Your task to perform on an android device: visit the assistant section in the google photos Image 0: 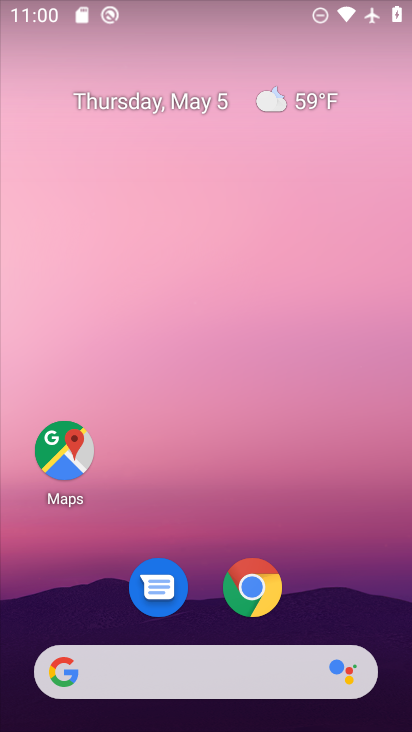
Step 0: drag from (354, 536) to (225, 0)
Your task to perform on an android device: visit the assistant section in the google photos Image 1: 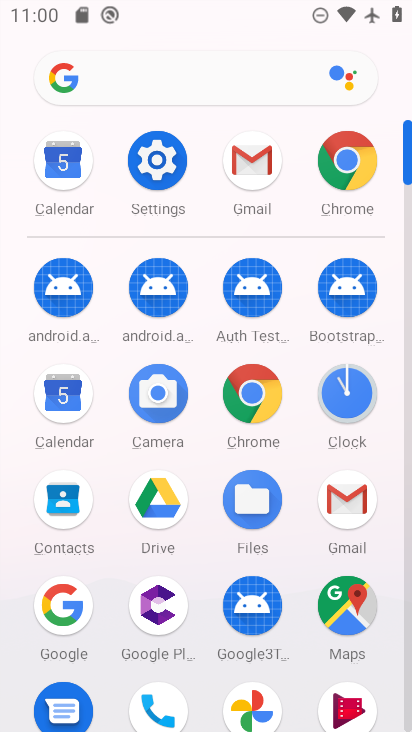
Step 1: drag from (1, 592) to (3, 308)
Your task to perform on an android device: visit the assistant section in the google photos Image 2: 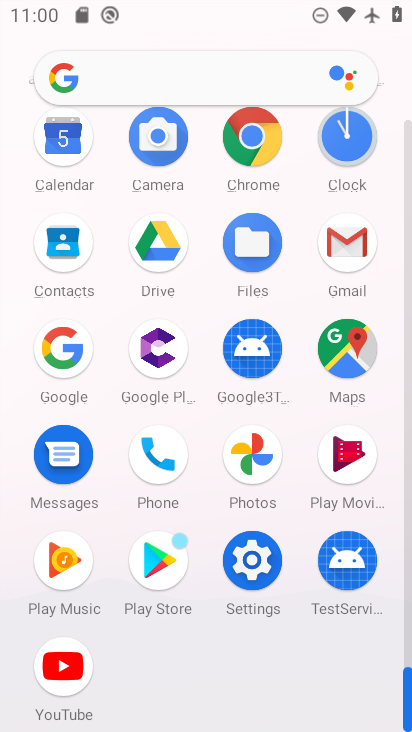
Step 2: click (253, 451)
Your task to perform on an android device: visit the assistant section in the google photos Image 3: 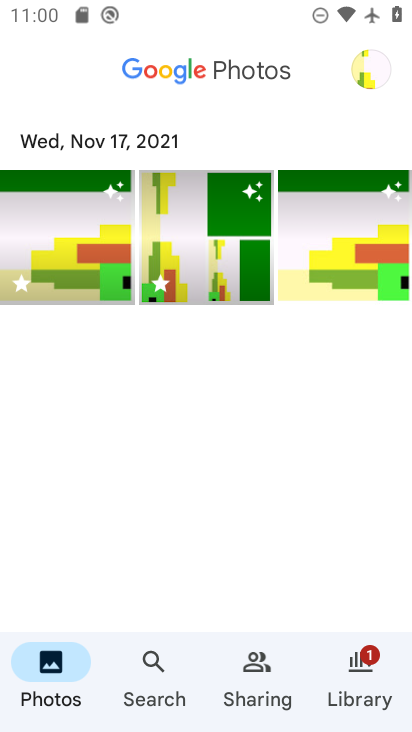
Step 3: click (276, 683)
Your task to perform on an android device: visit the assistant section in the google photos Image 4: 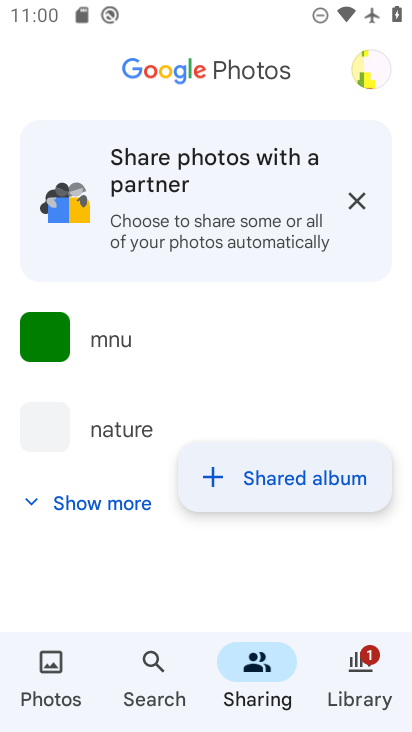
Step 4: click (356, 673)
Your task to perform on an android device: visit the assistant section in the google photos Image 5: 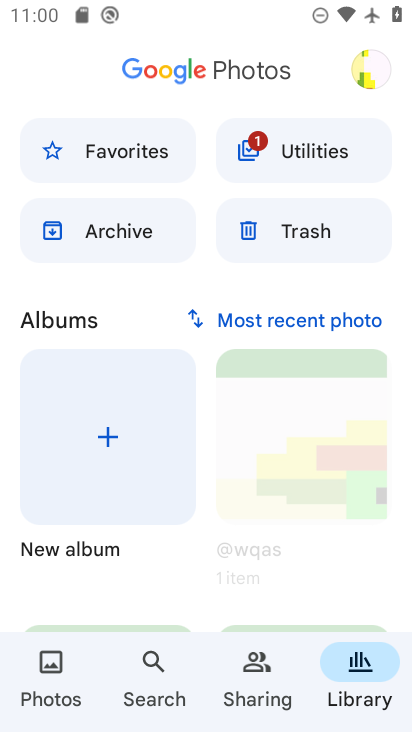
Step 5: click (269, 674)
Your task to perform on an android device: visit the assistant section in the google photos Image 6: 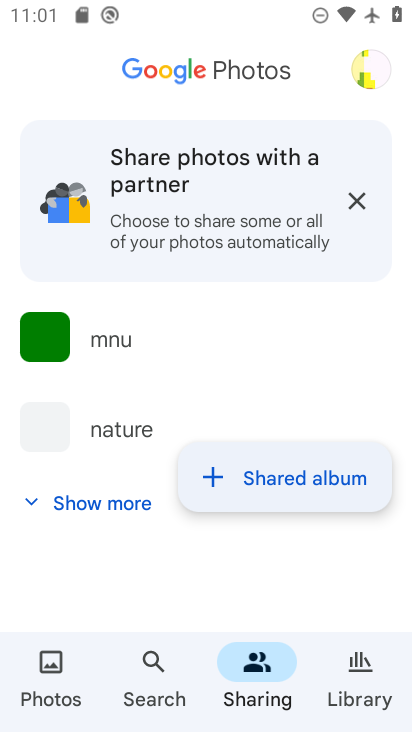
Step 6: click (345, 670)
Your task to perform on an android device: visit the assistant section in the google photos Image 7: 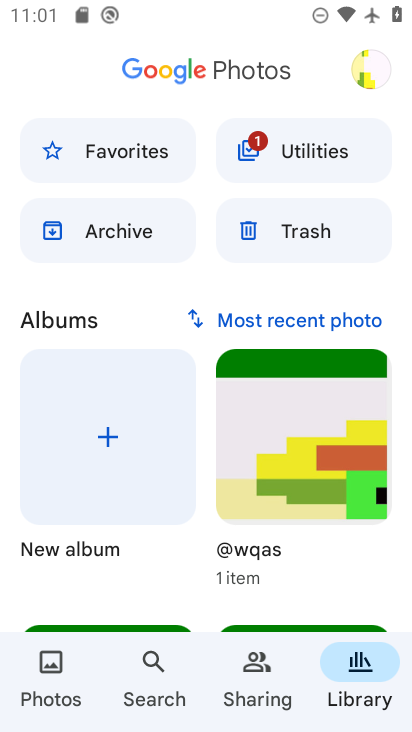
Step 7: task complete